Your task to perform on an android device: check battery use Image 0: 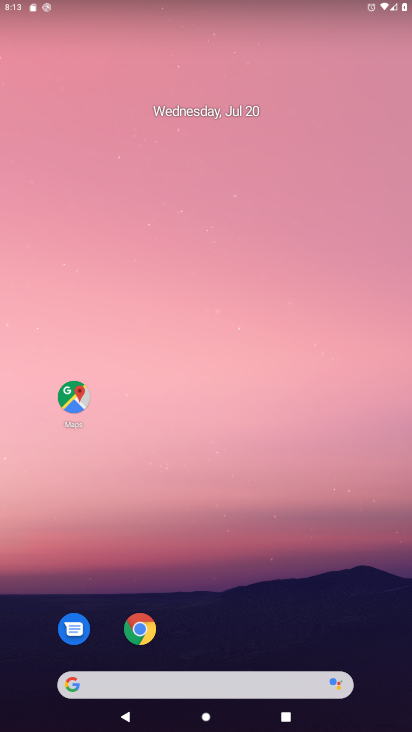
Step 0: drag from (329, 623) to (284, 207)
Your task to perform on an android device: check battery use Image 1: 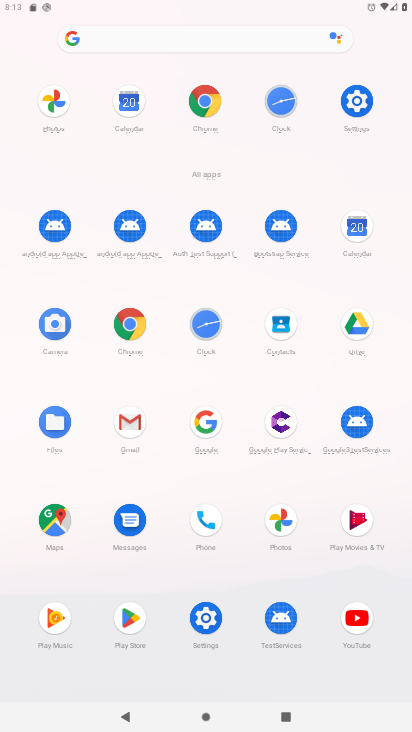
Step 1: click (361, 110)
Your task to perform on an android device: check battery use Image 2: 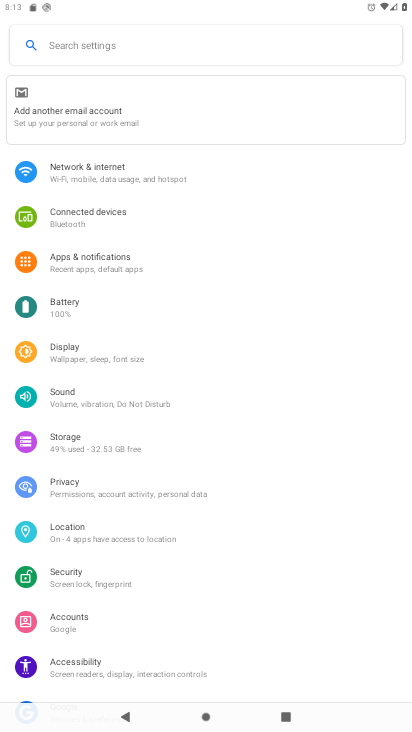
Step 2: click (61, 310)
Your task to perform on an android device: check battery use Image 3: 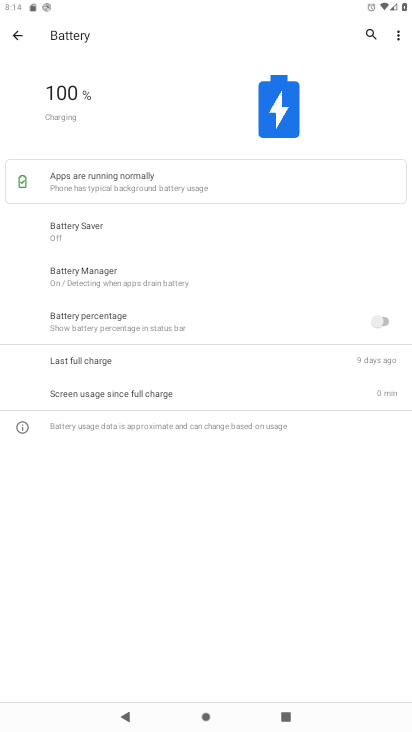
Step 3: click (397, 35)
Your task to perform on an android device: check battery use Image 4: 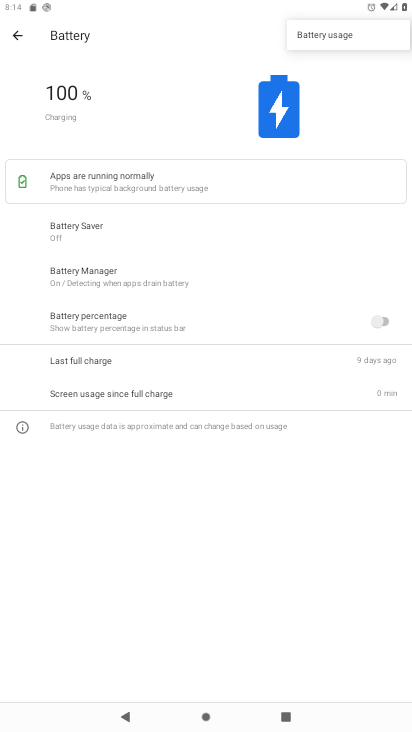
Step 4: click (345, 36)
Your task to perform on an android device: check battery use Image 5: 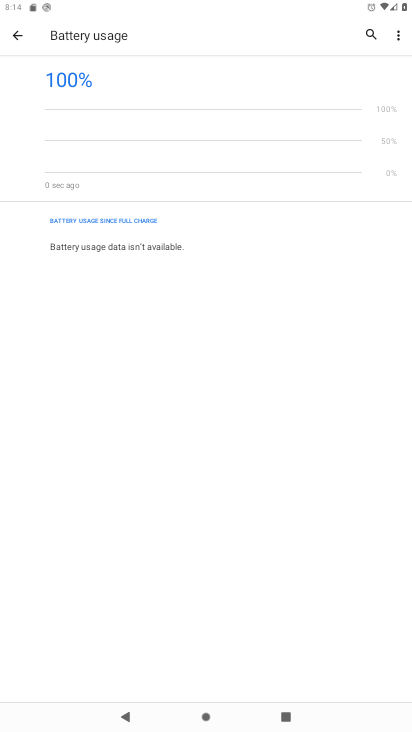
Step 5: task complete